Your task to perform on an android device: check data usage Image 0: 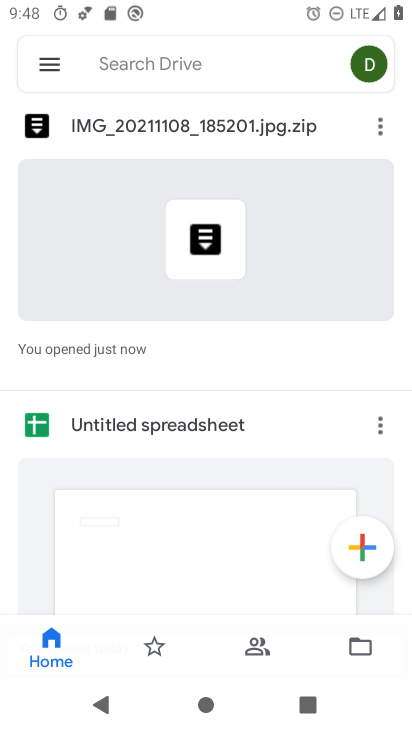
Step 0: press home button
Your task to perform on an android device: check data usage Image 1: 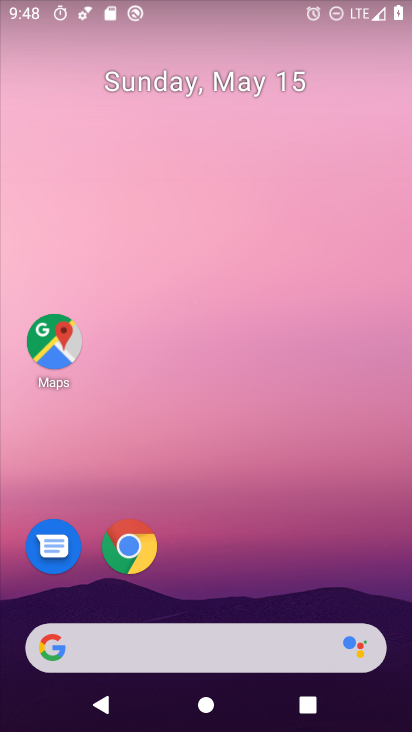
Step 1: drag from (221, 550) to (257, 82)
Your task to perform on an android device: check data usage Image 2: 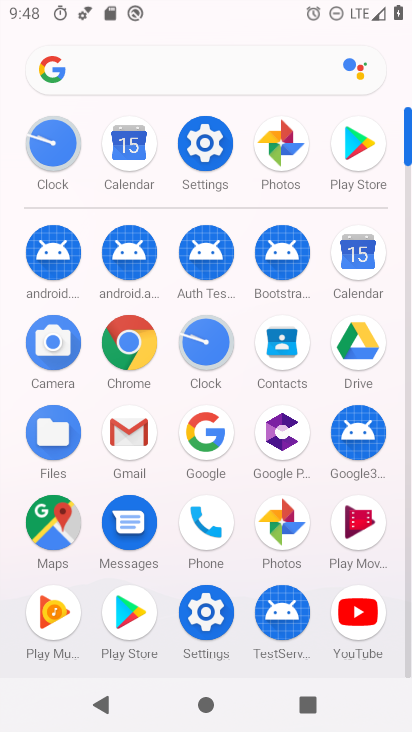
Step 2: click (206, 137)
Your task to perform on an android device: check data usage Image 3: 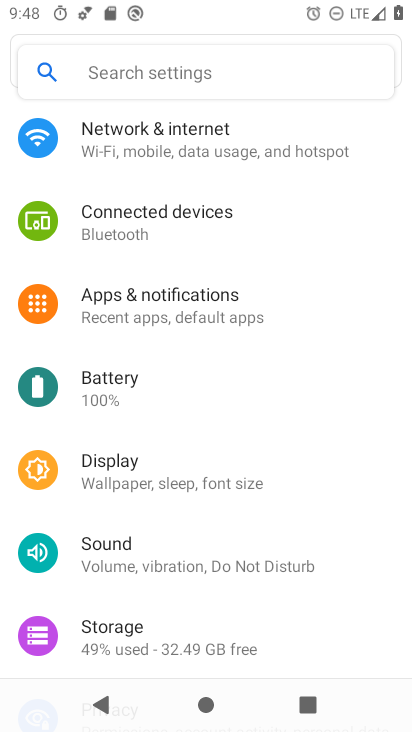
Step 3: click (245, 151)
Your task to perform on an android device: check data usage Image 4: 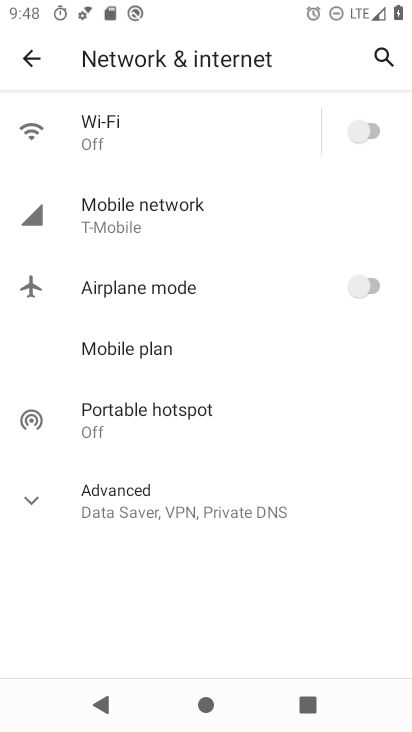
Step 4: click (184, 221)
Your task to perform on an android device: check data usage Image 5: 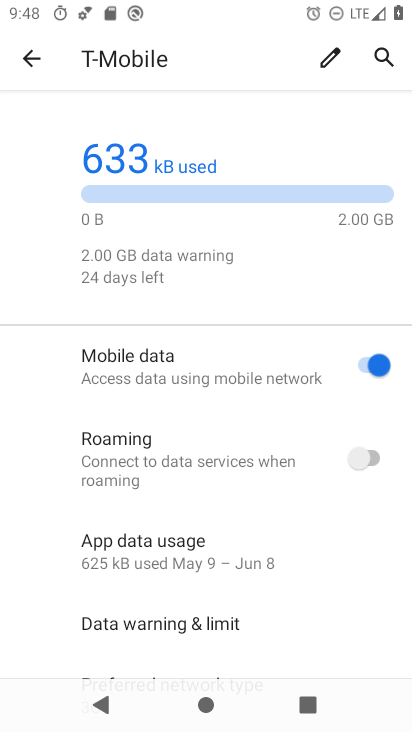
Step 5: task complete